Your task to perform on an android device: empty trash in google photos Image 0: 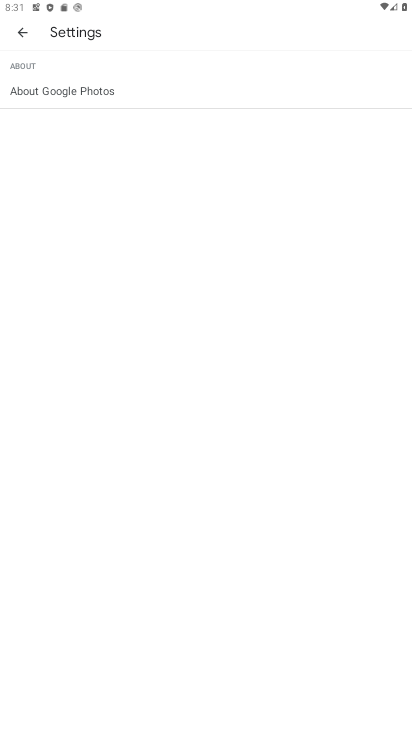
Step 0: press home button
Your task to perform on an android device: empty trash in google photos Image 1: 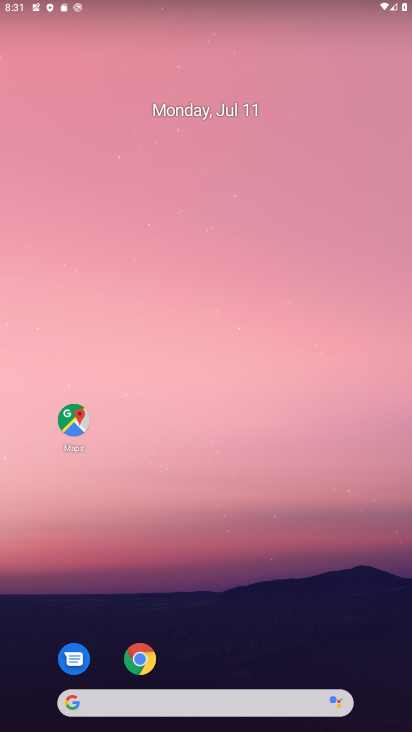
Step 1: drag from (187, 563) to (136, 147)
Your task to perform on an android device: empty trash in google photos Image 2: 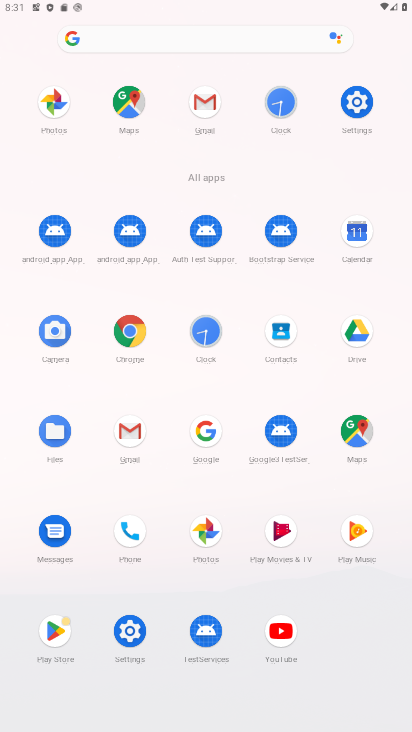
Step 2: click (48, 100)
Your task to perform on an android device: empty trash in google photos Image 3: 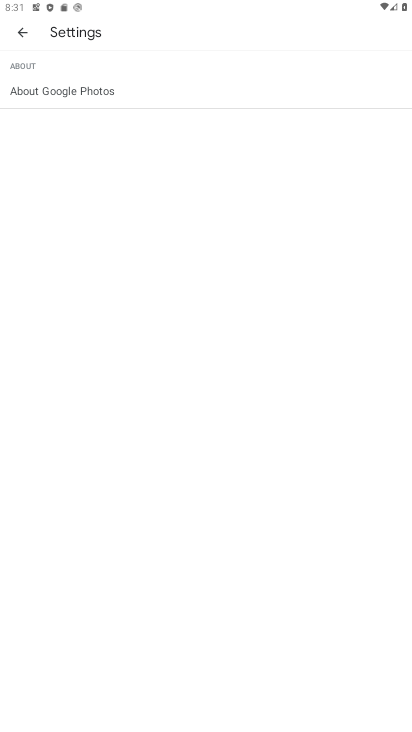
Step 3: click (20, 30)
Your task to perform on an android device: empty trash in google photos Image 4: 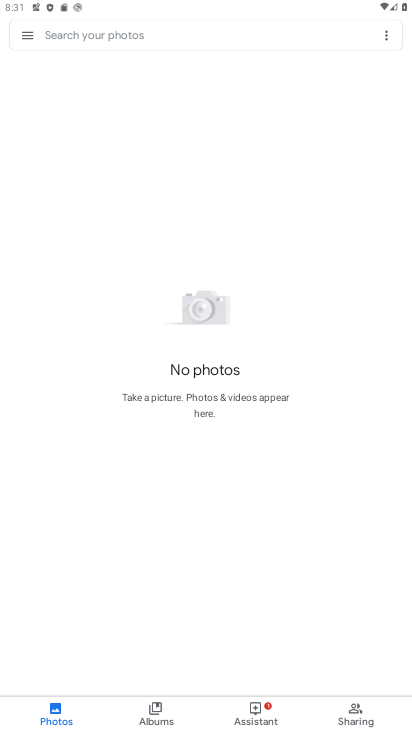
Step 4: click (24, 33)
Your task to perform on an android device: empty trash in google photos Image 5: 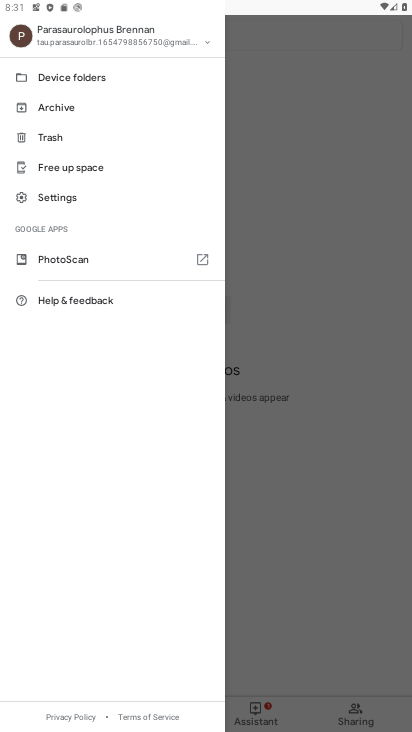
Step 5: click (48, 136)
Your task to perform on an android device: empty trash in google photos Image 6: 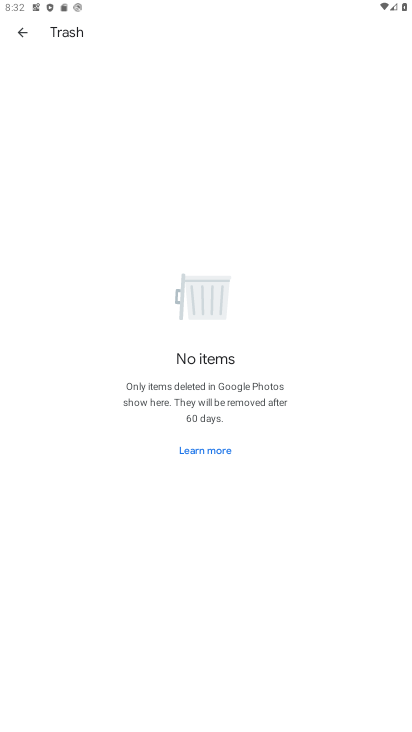
Step 6: task complete